Your task to perform on an android device: turn off sleep mode Image 0: 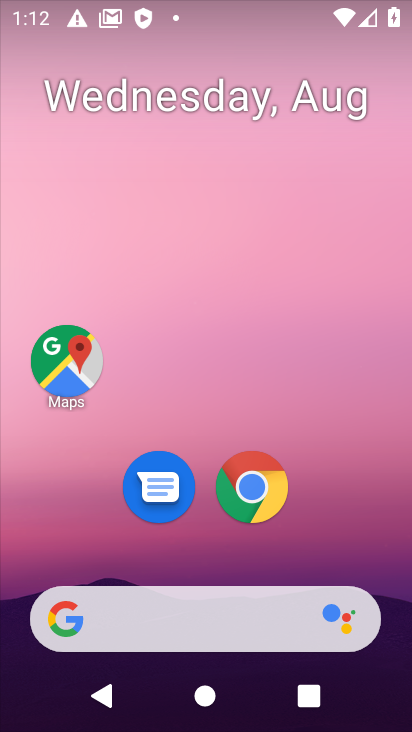
Step 0: drag from (216, 564) to (185, 61)
Your task to perform on an android device: turn off sleep mode Image 1: 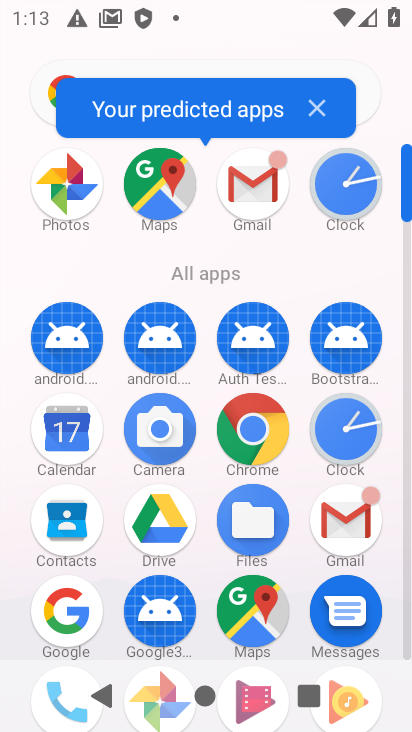
Step 1: drag from (390, 555) to (351, 110)
Your task to perform on an android device: turn off sleep mode Image 2: 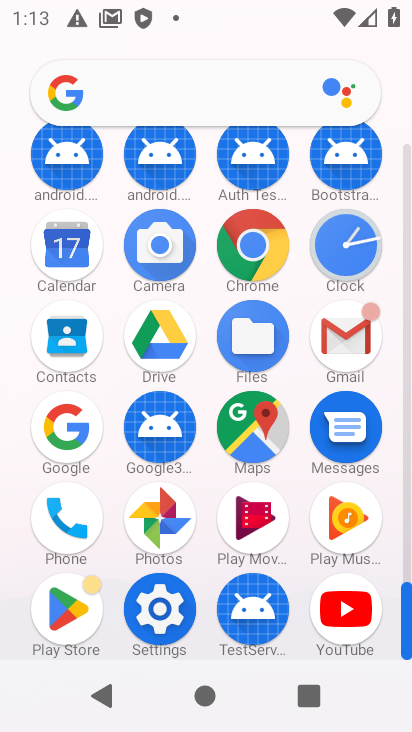
Step 2: click (163, 581)
Your task to perform on an android device: turn off sleep mode Image 3: 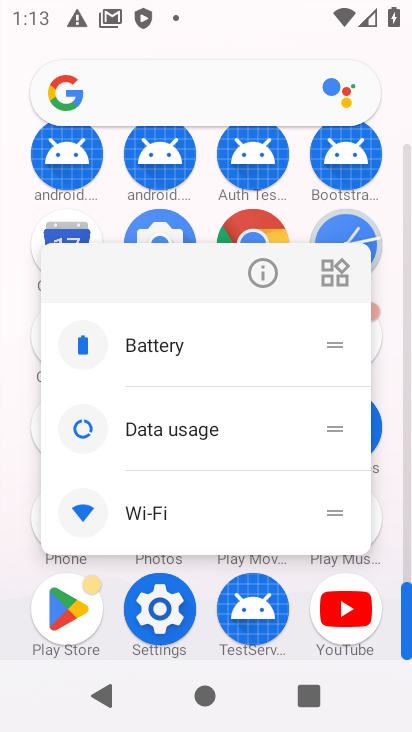
Step 3: click (155, 614)
Your task to perform on an android device: turn off sleep mode Image 4: 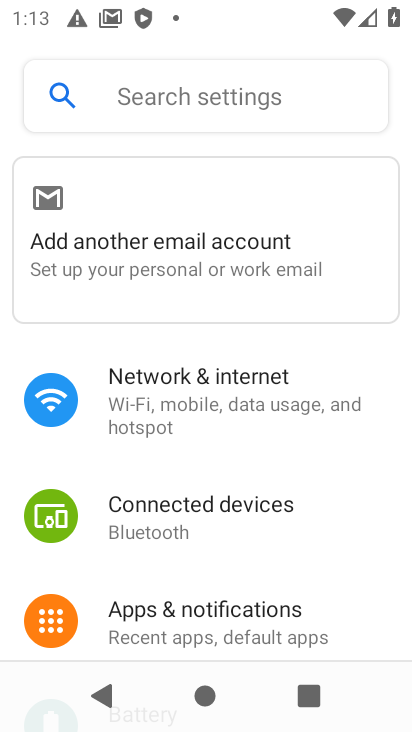
Step 4: drag from (364, 606) to (349, 153)
Your task to perform on an android device: turn off sleep mode Image 5: 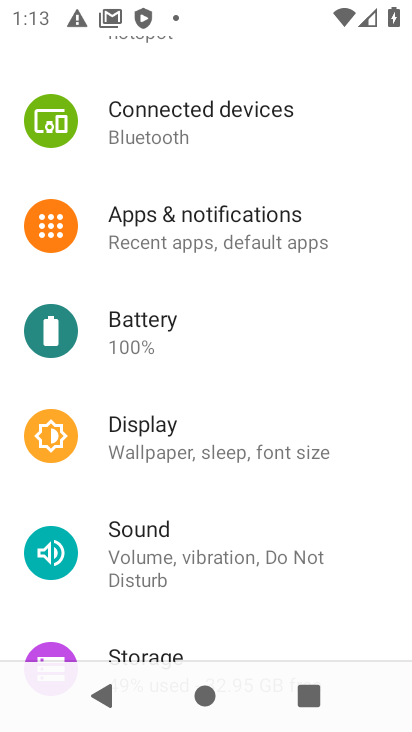
Step 5: click (164, 445)
Your task to perform on an android device: turn off sleep mode Image 6: 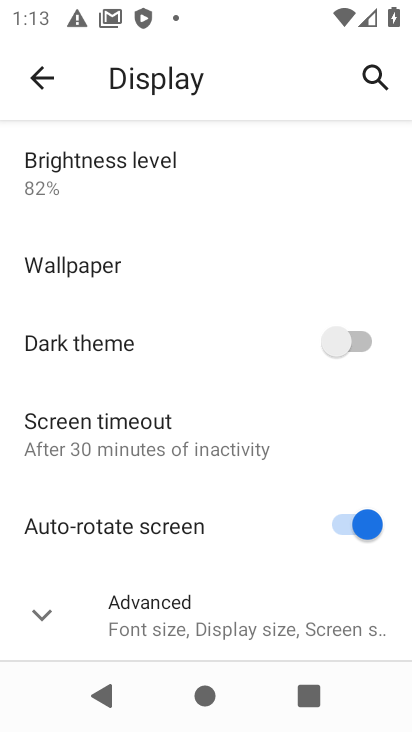
Step 6: task complete